Your task to perform on an android device: Check the news Image 0: 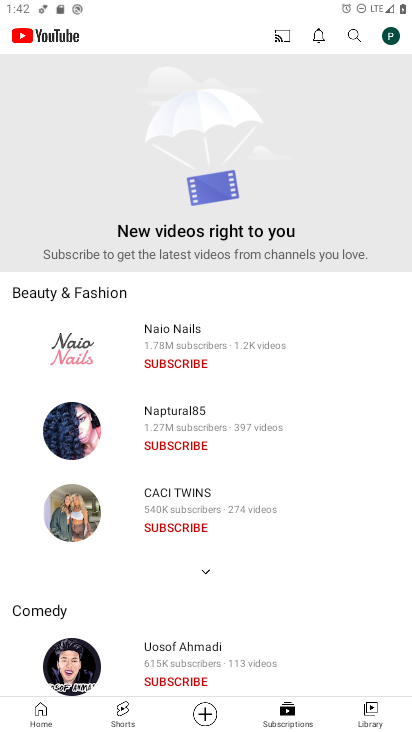
Step 0: press home button
Your task to perform on an android device: Check the news Image 1: 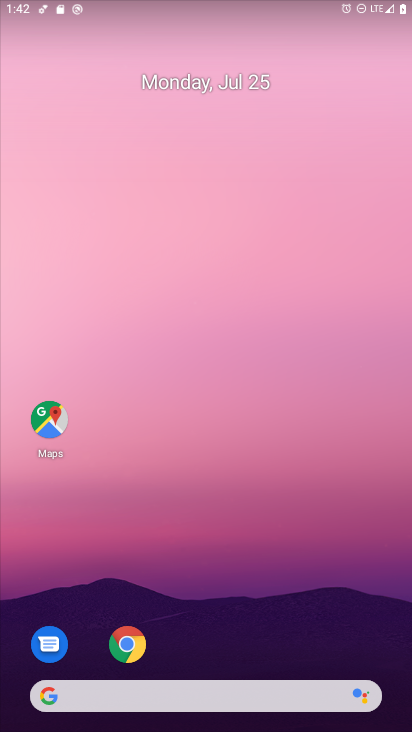
Step 1: click (215, 697)
Your task to perform on an android device: Check the news Image 2: 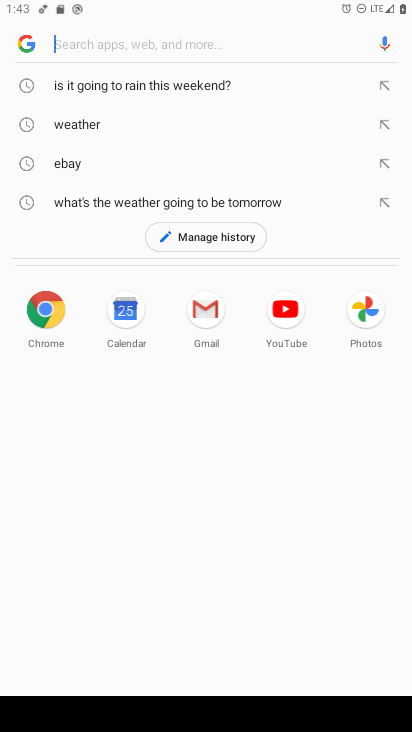
Step 2: type "news"
Your task to perform on an android device: Check the news Image 3: 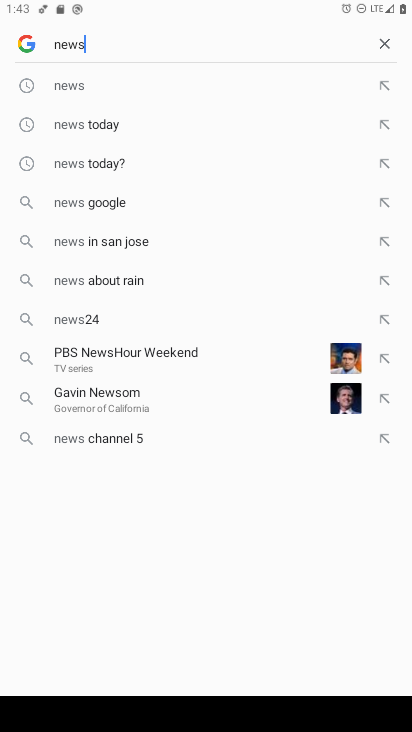
Step 3: click (113, 75)
Your task to perform on an android device: Check the news Image 4: 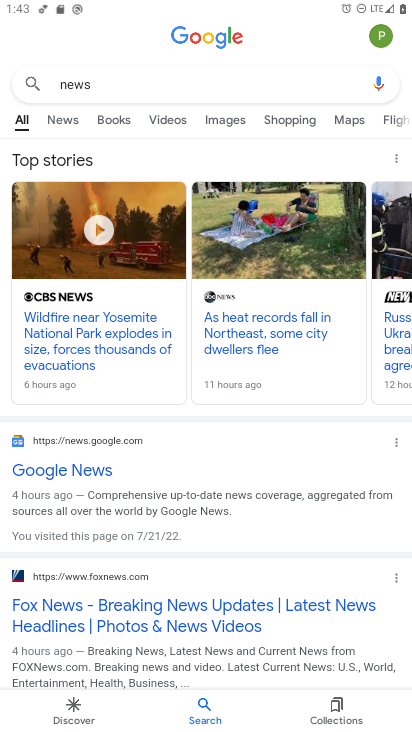
Step 4: click (71, 110)
Your task to perform on an android device: Check the news Image 5: 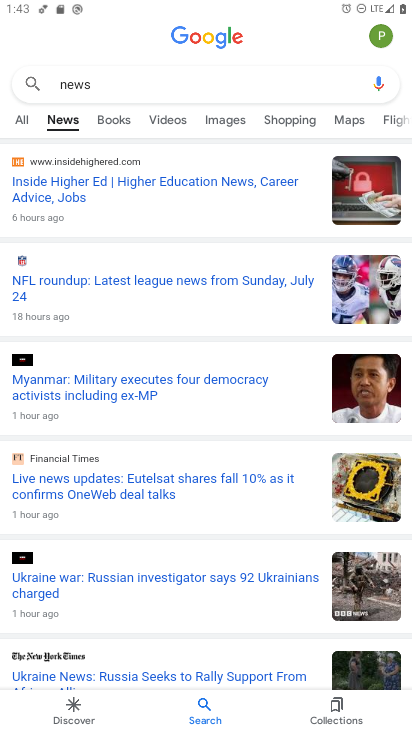
Step 5: task complete